Your task to perform on an android device: turn vacation reply on in the gmail app Image 0: 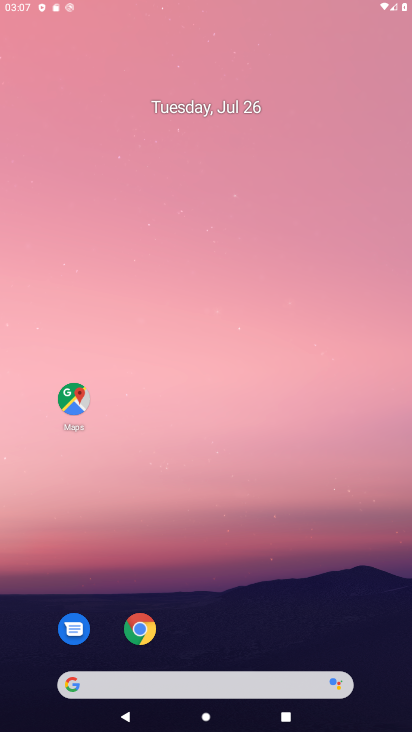
Step 0: press home button
Your task to perform on an android device: turn vacation reply on in the gmail app Image 1: 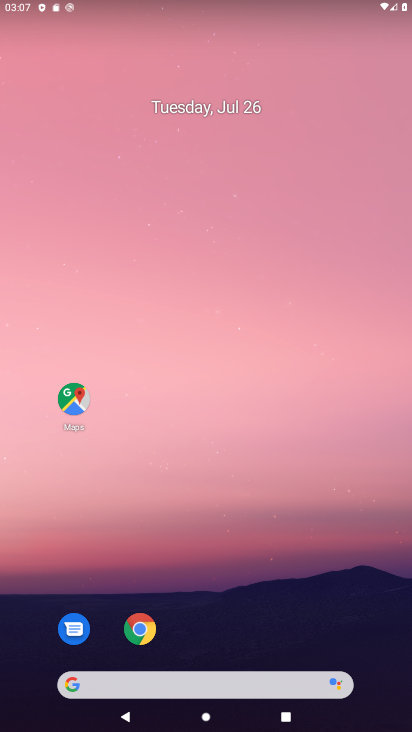
Step 1: drag from (222, 365) to (246, 116)
Your task to perform on an android device: turn vacation reply on in the gmail app Image 2: 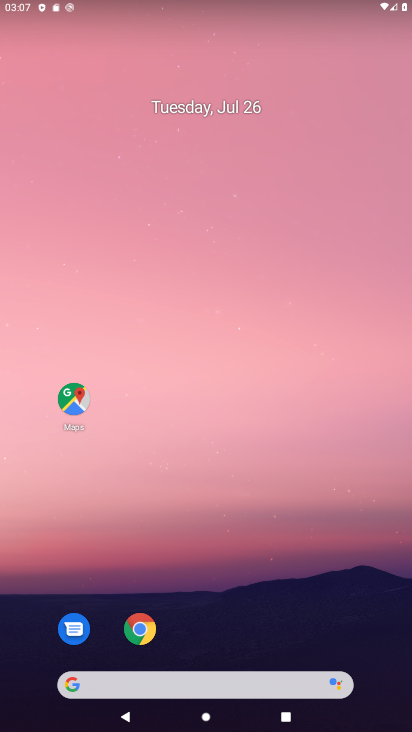
Step 2: drag from (327, 586) to (317, 31)
Your task to perform on an android device: turn vacation reply on in the gmail app Image 3: 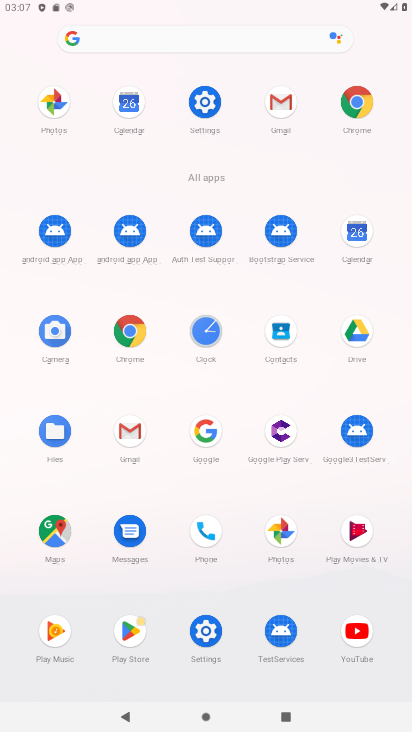
Step 3: click (269, 105)
Your task to perform on an android device: turn vacation reply on in the gmail app Image 4: 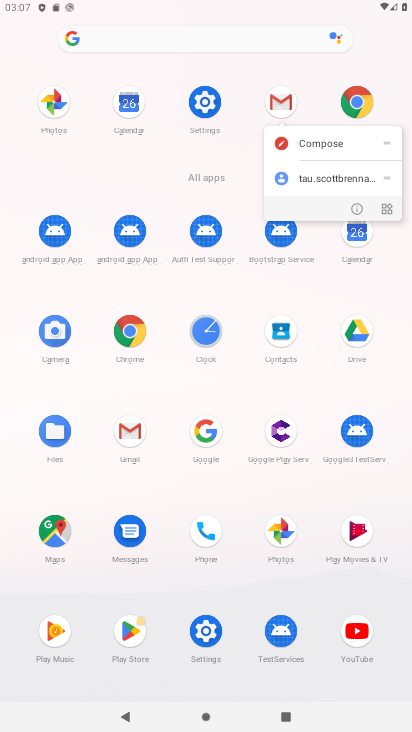
Step 4: click (275, 96)
Your task to perform on an android device: turn vacation reply on in the gmail app Image 5: 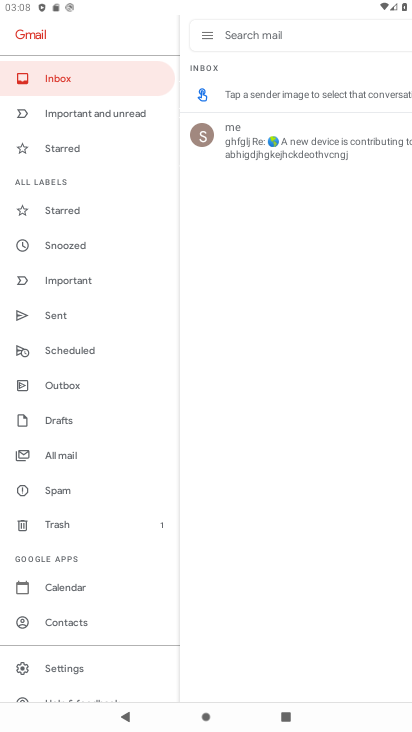
Step 5: click (21, 665)
Your task to perform on an android device: turn vacation reply on in the gmail app Image 6: 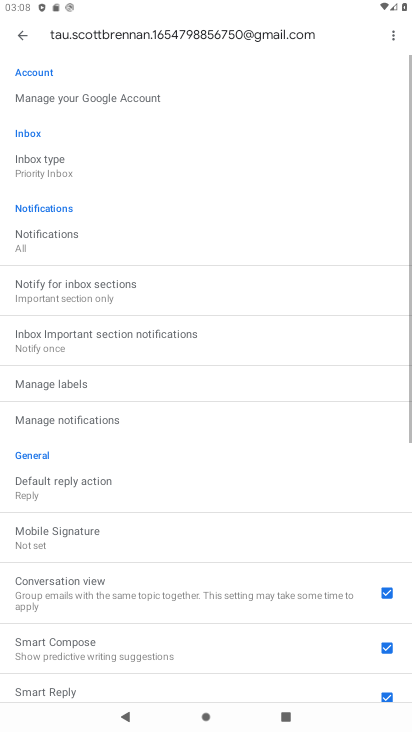
Step 6: drag from (183, 616) to (111, 11)
Your task to perform on an android device: turn vacation reply on in the gmail app Image 7: 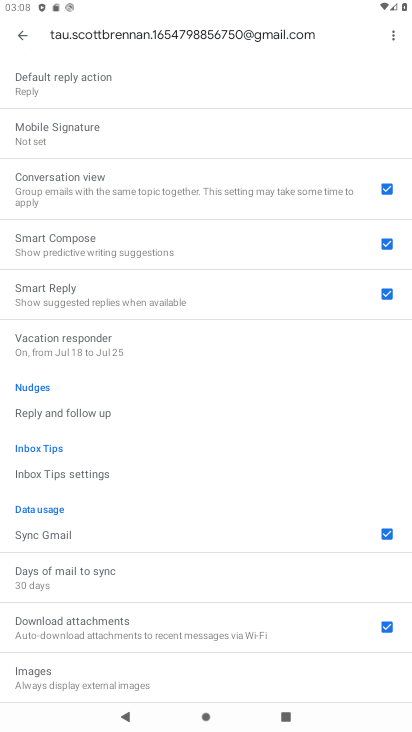
Step 7: click (56, 348)
Your task to perform on an android device: turn vacation reply on in the gmail app Image 8: 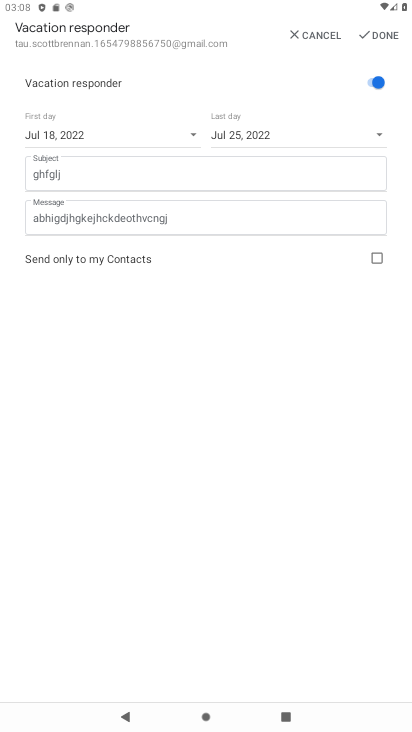
Step 8: click (191, 127)
Your task to perform on an android device: turn vacation reply on in the gmail app Image 9: 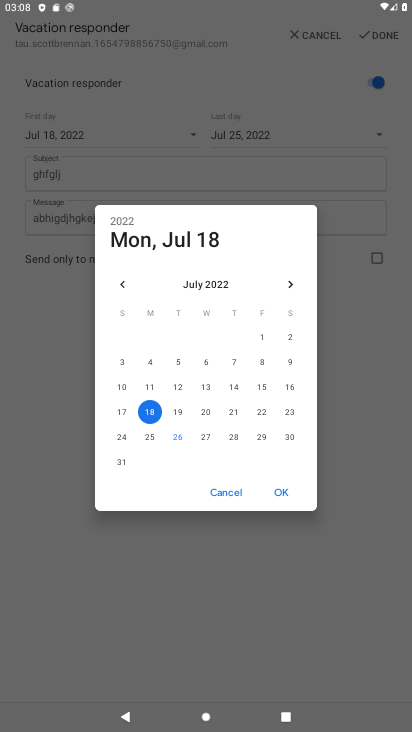
Step 9: click (177, 442)
Your task to perform on an android device: turn vacation reply on in the gmail app Image 10: 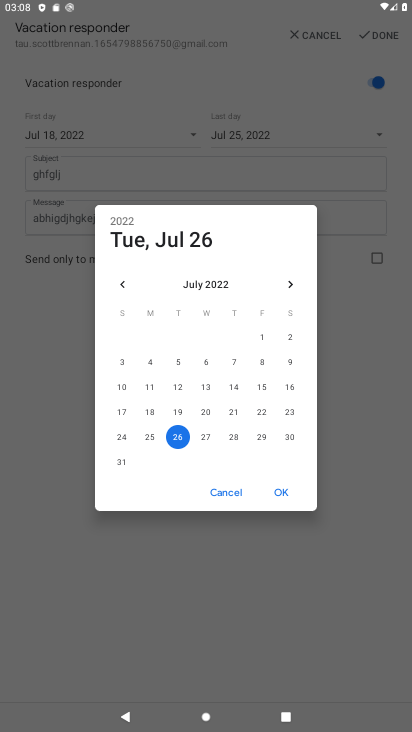
Step 10: click (297, 495)
Your task to perform on an android device: turn vacation reply on in the gmail app Image 11: 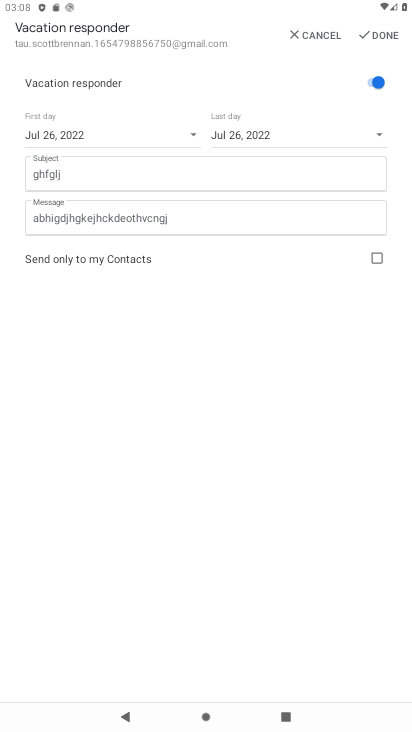
Step 11: click (372, 138)
Your task to perform on an android device: turn vacation reply on in the gmail app Image 12: 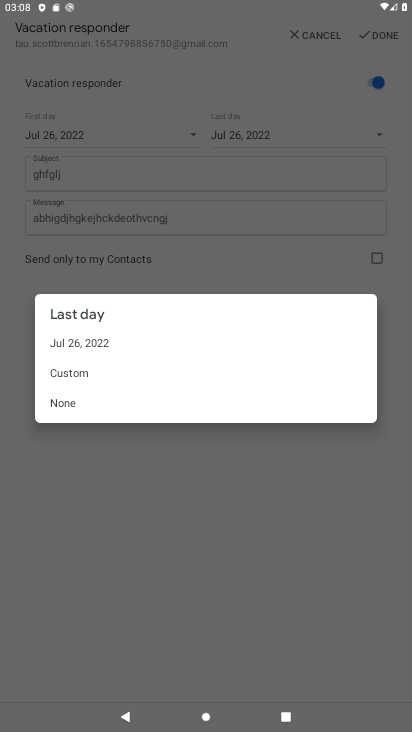
Step 12: click (77, 339)
Your task to perform on an android device: turn vacation reply on in the gmail app Image 13: 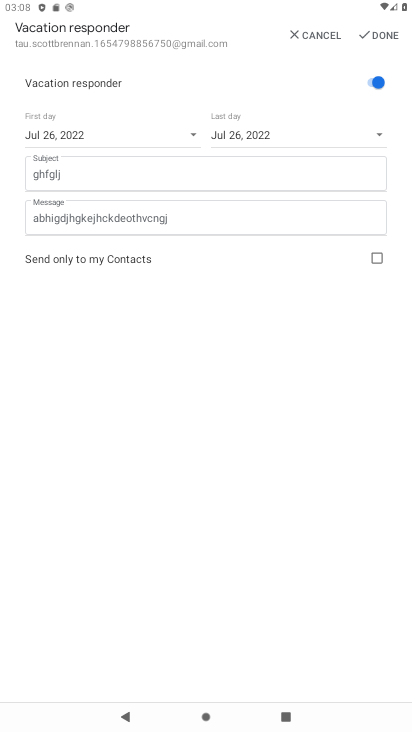
Step 13: click (296, 135)
Your task to perform on an android device: turn vacation reply on in the gmail app Image 14: 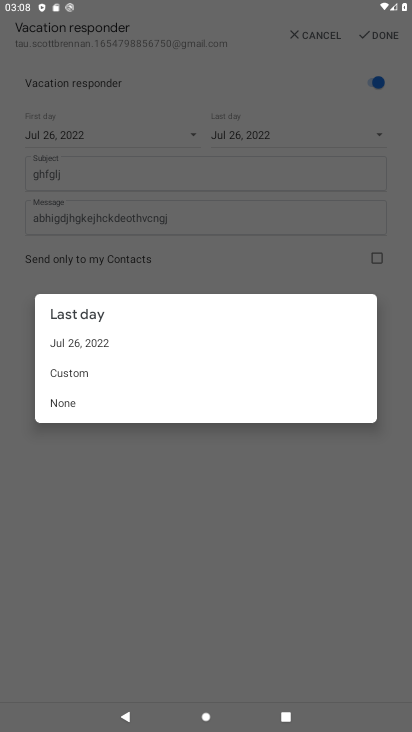
Step 14: click (69, 372)
Your task to perform on an android device: turn vacation reply on in the gmail app Image 15: 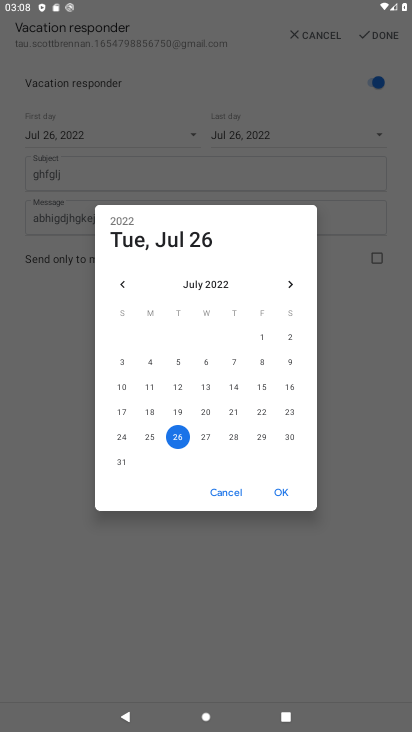
Step 15: click (294, 286)
Your task to perform on an android device: turn vacation reply on in the gmail app Image 16: 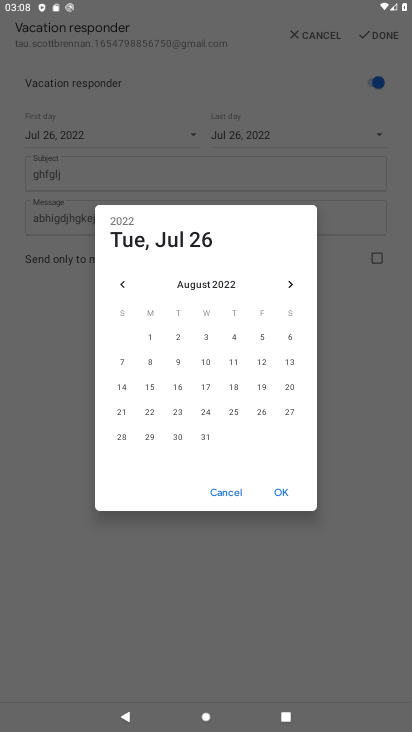
Step 16: click (294, 286)
Your task to perform on an android device: turn vacation reply on in the gmail app Image 17: 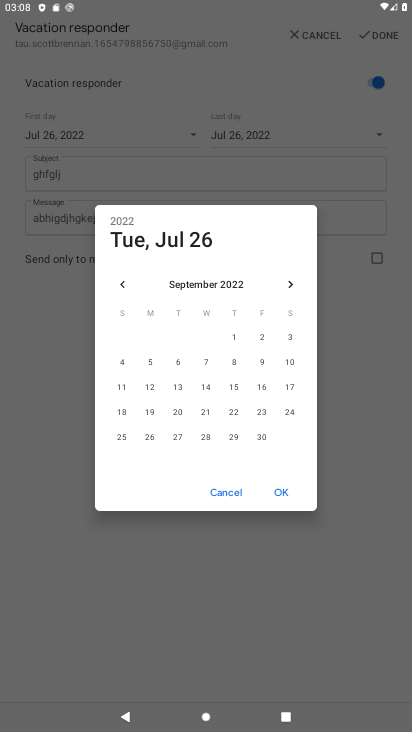
Step 17: click (294, 410)
Your task to perform on an android device: turn vacation reply on in the gmail app Image 18: 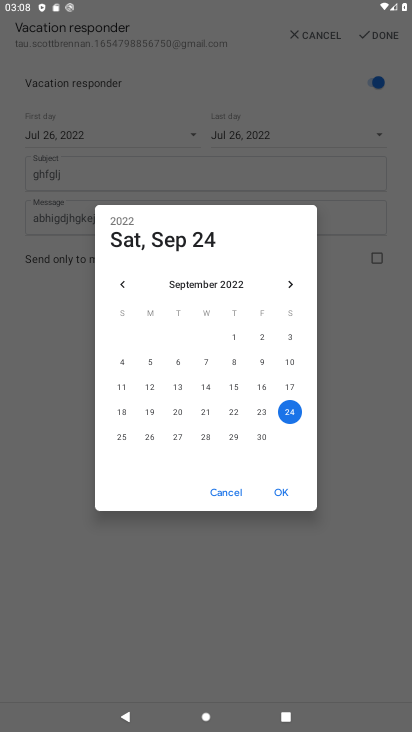
Step 18: click (275, 497)
Your task to perform on an android device: turn vacation reply on in the gmail app Image 19: 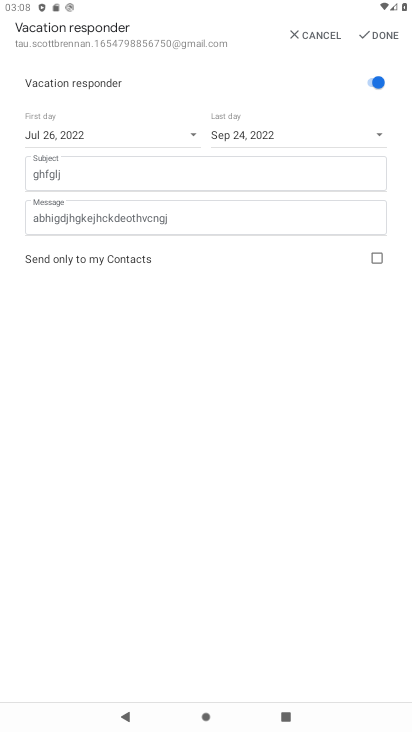
Step 19: click (370, 41)
Your task to perform on an android device: turn vacation reply on in the gmail app Image 20: 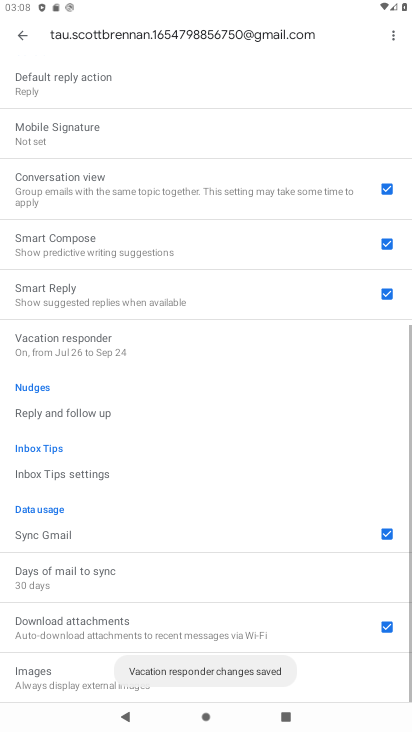
Step 20: task complete